Your task to perform on an android device: show emergency info Image 0: 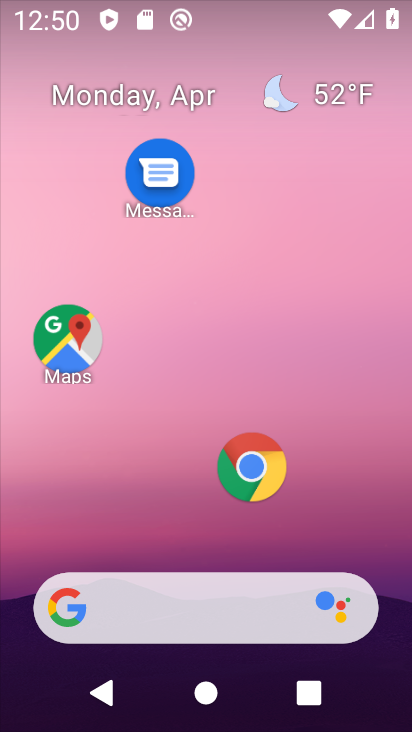
Step 0: drag from (192, 537) to (251, 115)
Your task to perform on an android device: show emergency info Image 1: 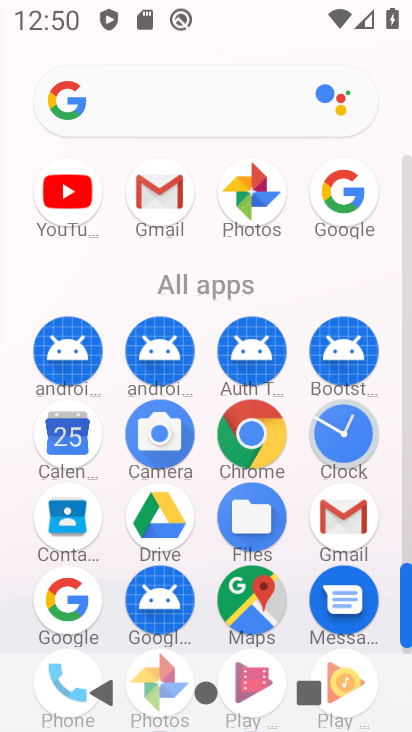
Step 1: drag from (125, 532) to (192, 214)
Your task to perform on an android device: show emergency info Image 2: 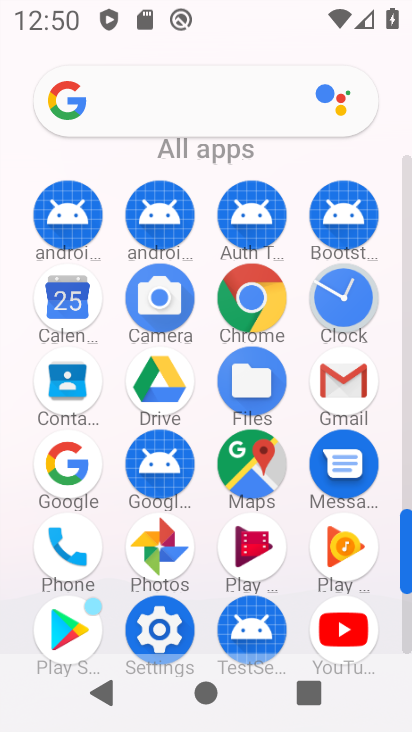
Step 2: drag from (110, 588) to (152, 366)
Your task to perform on an android device: show emergency info Image 3: 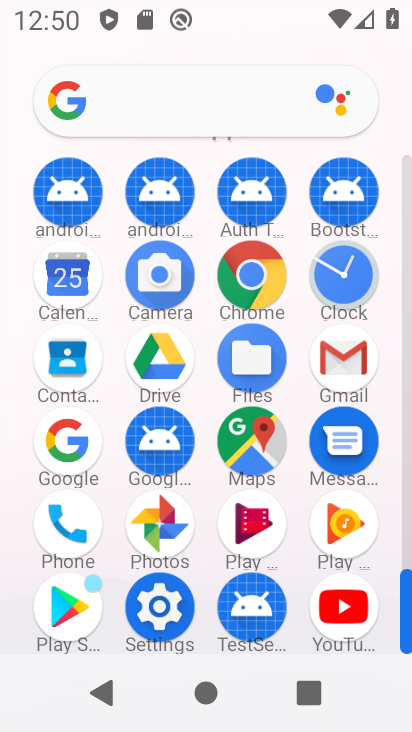
Step 3: click (158, 601)
Your task to perform on an android device: show emergency info Image 4: 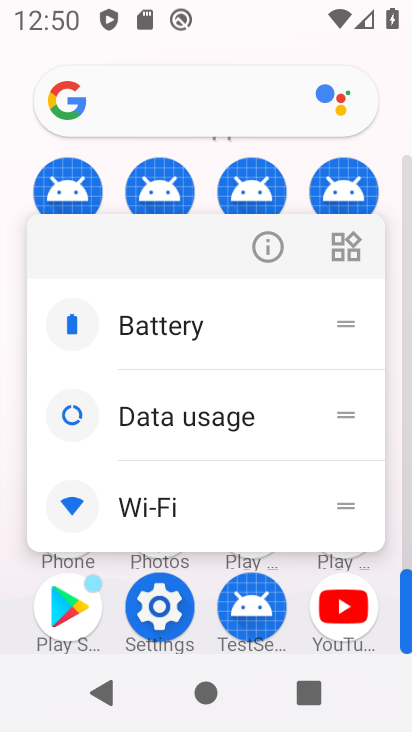
Step 4: click (153, 597)
Your task to perform on an android device: show emergency info Image 5: 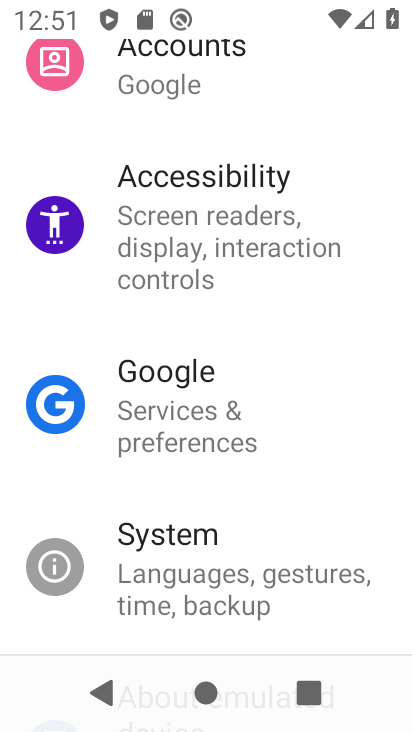
Step 5: drag from (234, 559) to (268, 209)
Your task to perform on an android device: show emergency info Image 6: 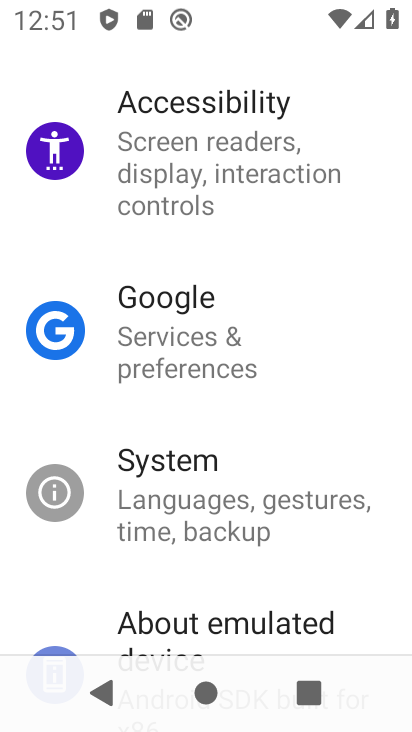
Step 6: click (220, 619)
Your task to perform on an android device: show emergency info Image 7: 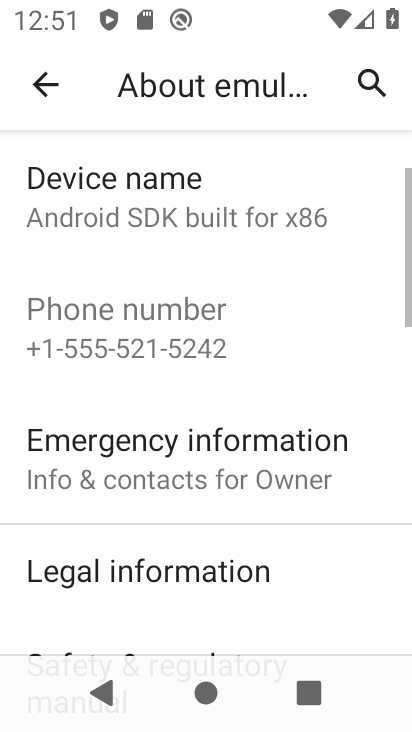
Step 7: click (227, 469)
Your task to perform on an android device: show emergency info Image 8: 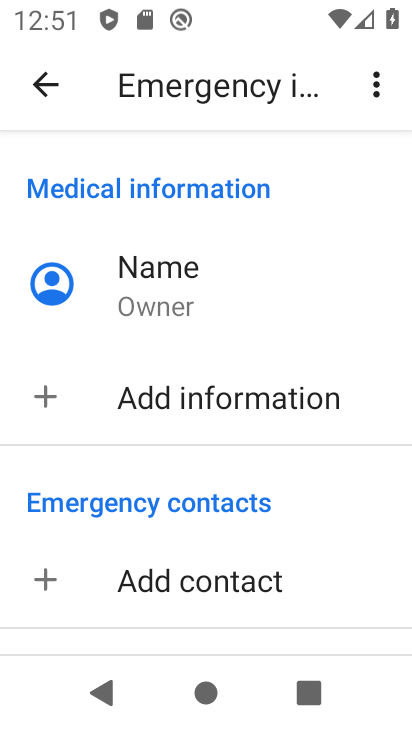
Step 8: task complete